Your task to perform on an android device: change alarm snooze length Image 0: 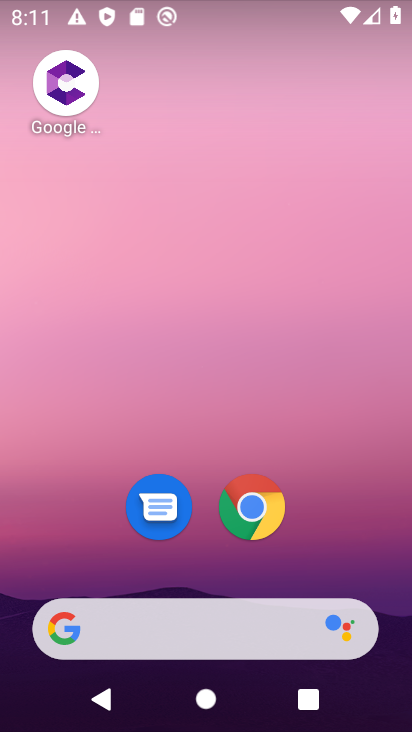
Step 0: drag from (189, 635) to (310, 19)
Your task to perform on an android device: change alarm snooze length Image 1: 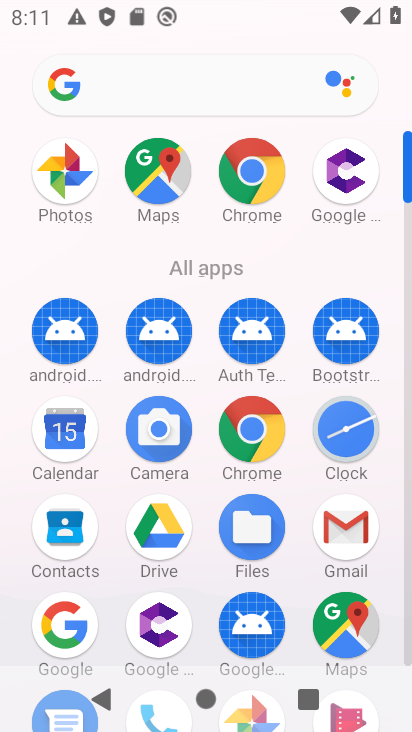
Step 1: click (350, 438)
Your task to perform on an android device: change alarm snooze length Image 2: 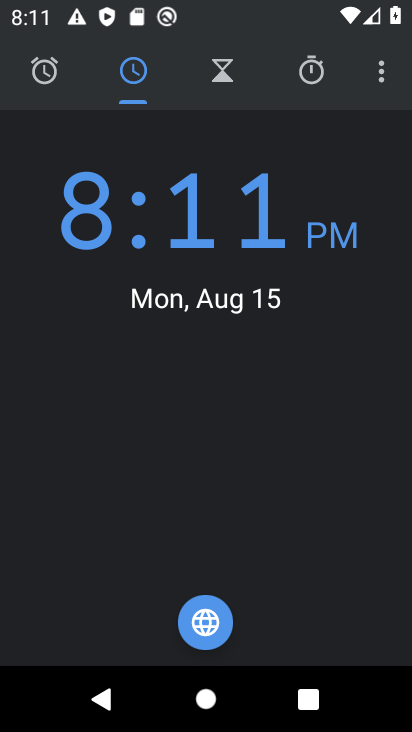
Step 2: click (383, 76)
Your task to perform on an android device: change alarm snooze length Image 3: 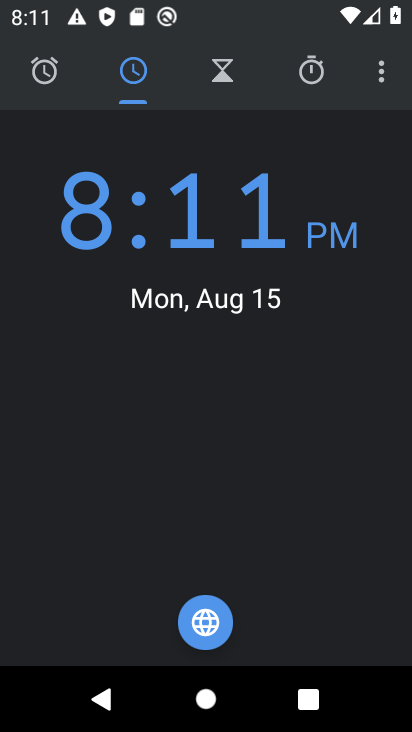
Step 3: click (375, 78)
Your task to perform on an android device: change alarm snooze length Image 4: 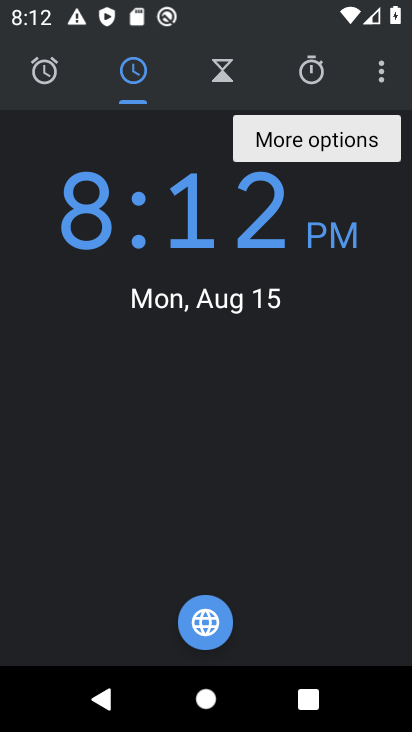
Step 4: click (385, 80)
Your task to perform on an android device: change alarm snooze length Image 5: 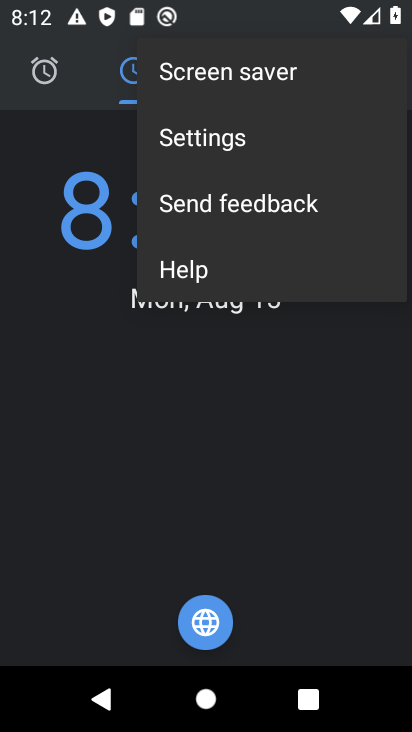
Step 5: click (273, 135)
Your task to perform on an android device: change alarm snooze length Image 6: 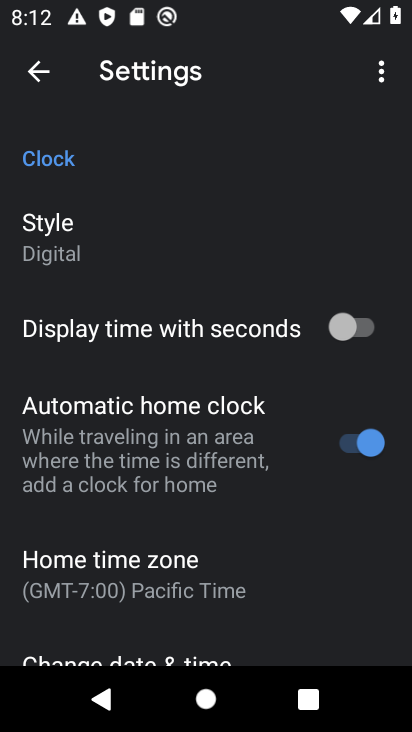
Step 6: drag from (269, 620) to (390, 58)
Your task to perform on an android device: change alarm snooze length Image 7: 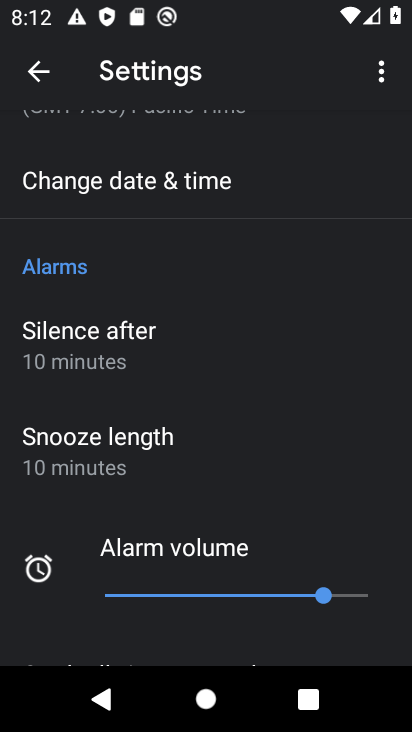
Step 7: click (107, 449)
Your task to perform on an android device: change alarm snooze length Image 8: 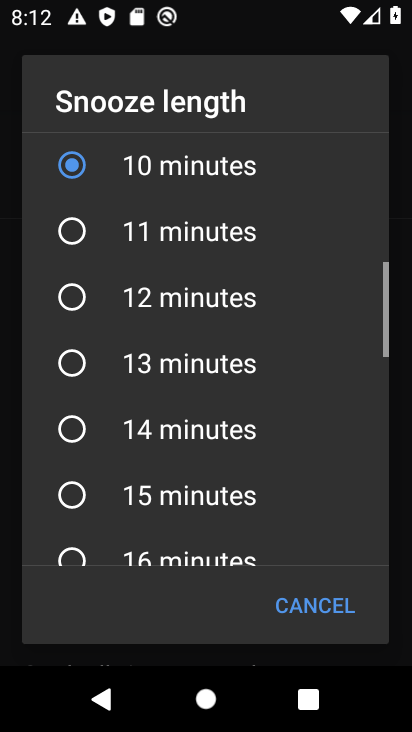
Step 8: click (74, 492)
Your task to perform on an android device: change alarm snooze length Image 9: 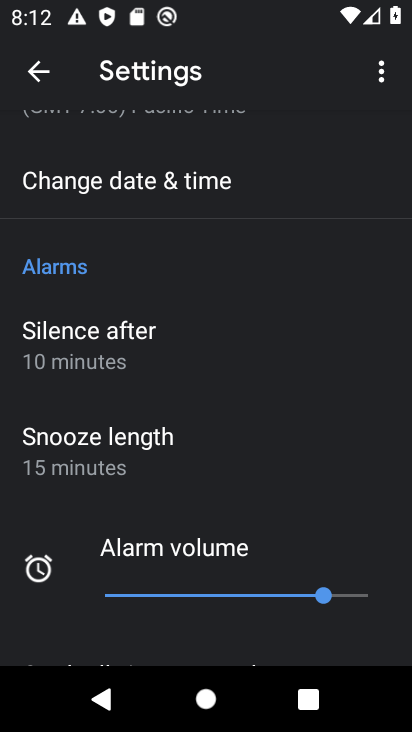
Step 9: task complete